Your task to perform on an android device: See recent photos Image 0: 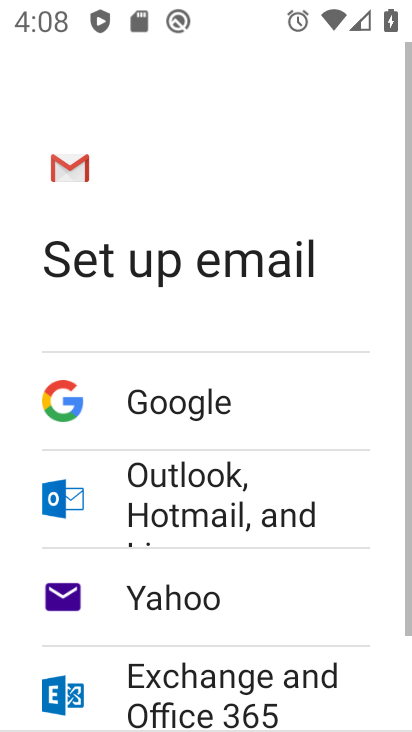
Step 0: press home button
Your task to perform on an android device: See recent photos Image 1: 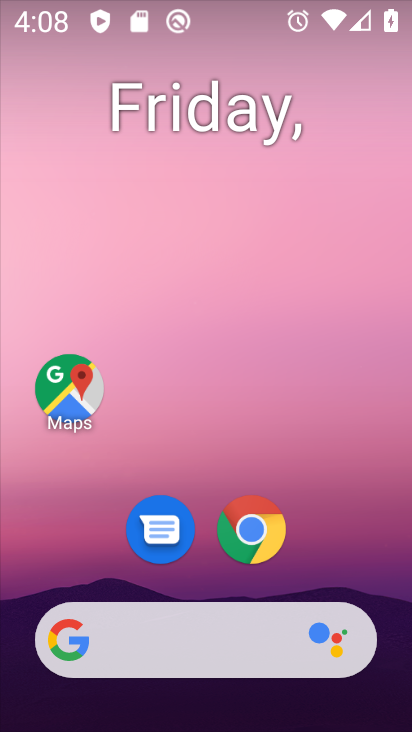
Step 1: drag from (75, 587) to (206, 196)
Your task to perform on an android device: See recent photos Image 2: 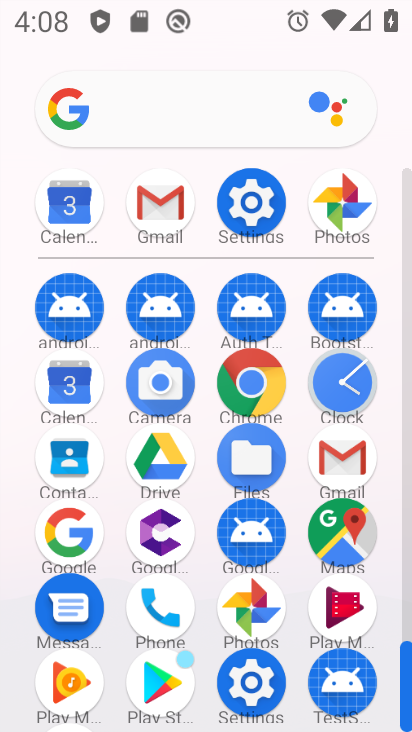
Step 2: click (245, 611)
Your task to perform on an android device: See recent photos Image 3: 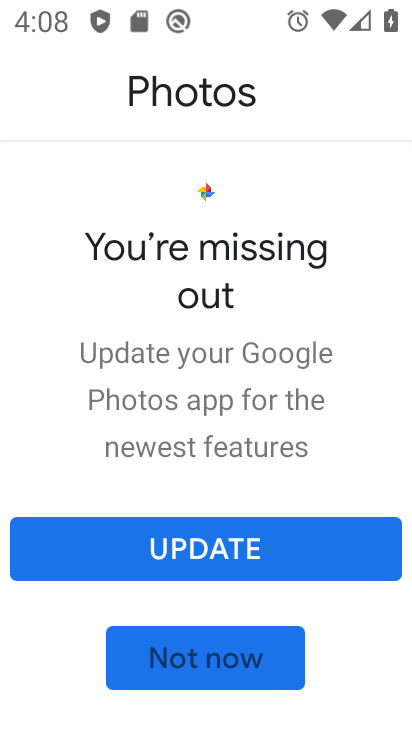
Step 3: click (245, 559)
Your task to perform on an android device: See recent photos Image 4: 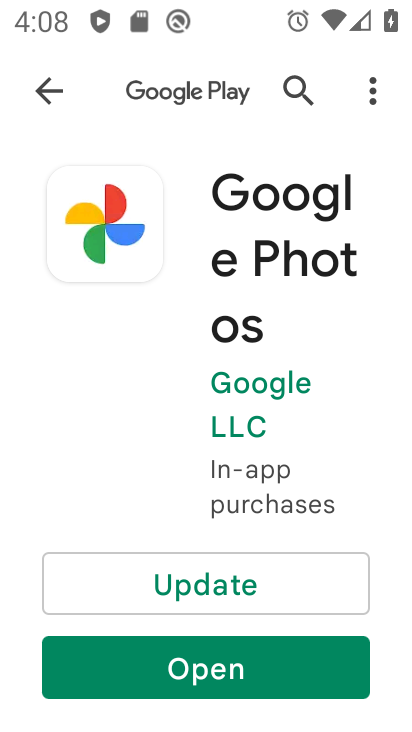
Step 4: click (249, 587)
Your task to perform on an android device: See recent photos Image 5: 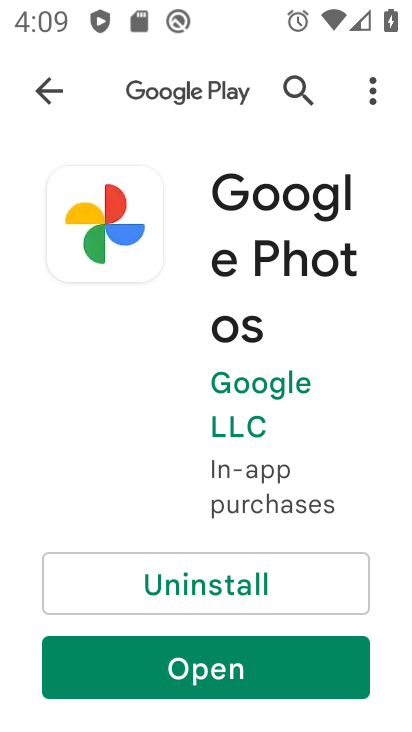
Step 5: click (274, 692)
Your task to perform on an android device: See recent photos Image 6: 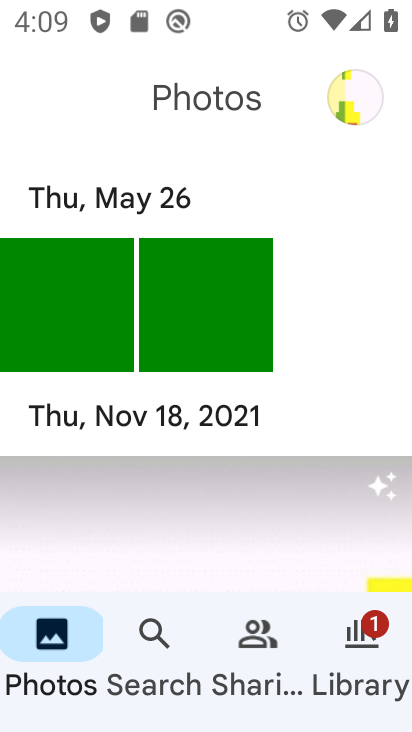
Step 6: task complete